Your task to perform on an android device: Open privacy settings Image 0: 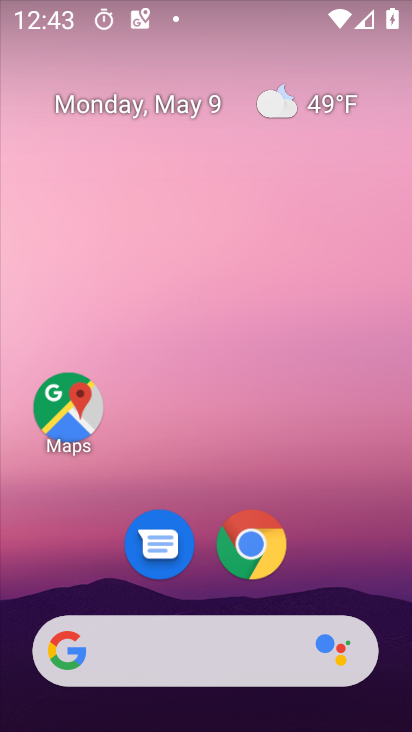
Step 0: drag from (331, 617) to (299, 56)
Your task to perform on an android device: Open privacy settings Image 1: 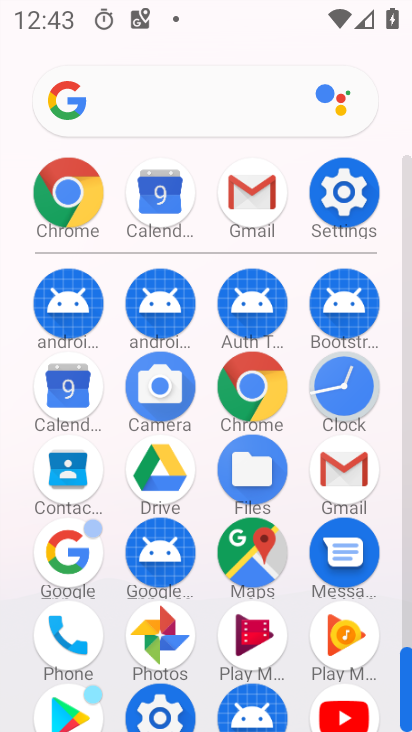
Step 1: click (72, 481)
Your task to perform on an android device: Open privacy settings Image 2: 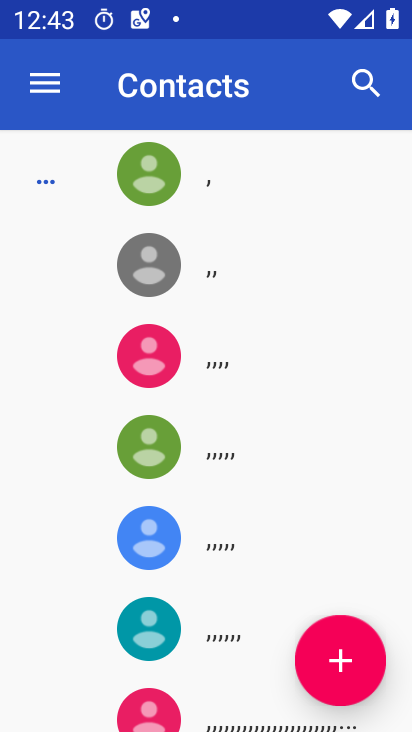
Step 2: press back button
Your task to perform on an android device: Open privacy settings Image 3: 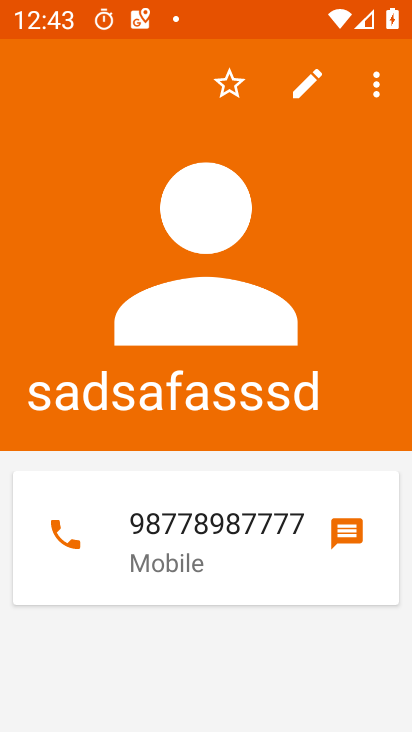
Step 3: press home button
Your task to perform on an android device: Open privacy settings Image 4: 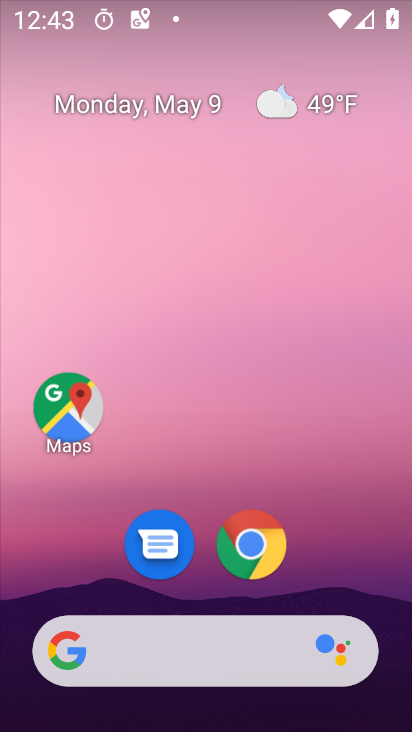
Step 4: drag from (307, 592) to (341, 4)
Your task to perform on an android device: Open privacy settings Image 5: 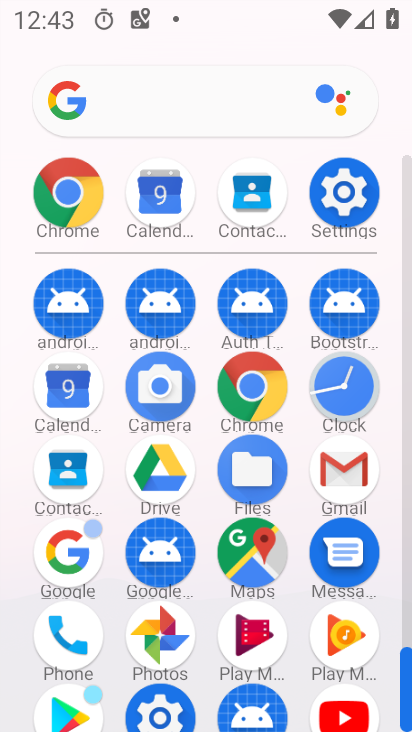
Step 5: click (354, 190)
Your task to perform on an android device: Open privacy settings Image 6: 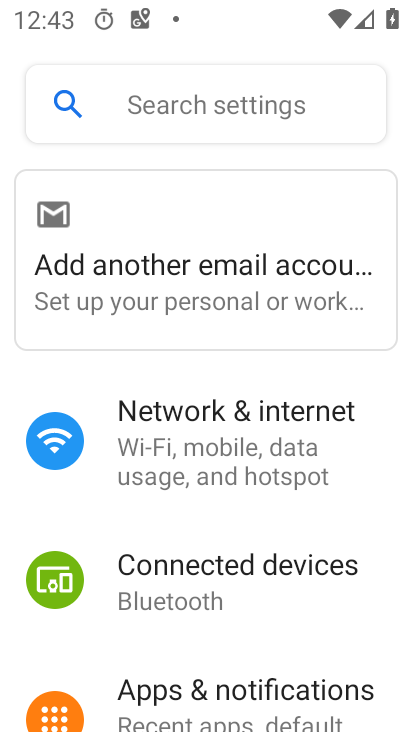
Step 6: drag from (263, 679) to (281, 30)
Your task to perform on an android device: Open privacy settings Image 7: 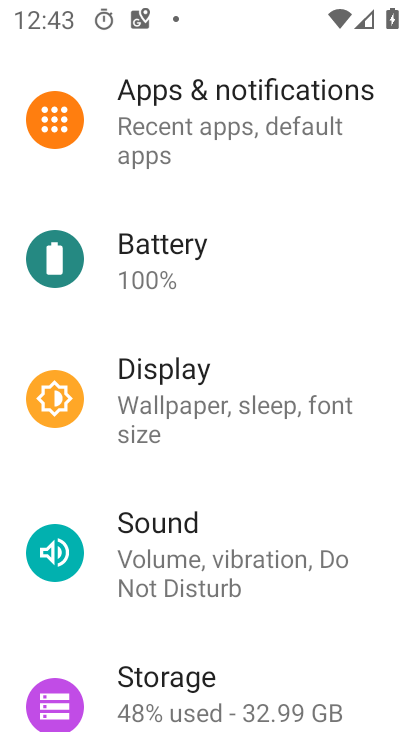
Step 7: drag from (208, 622) to (262, 99)
Your task to perform on an android device: Open privacy settings Image 8: 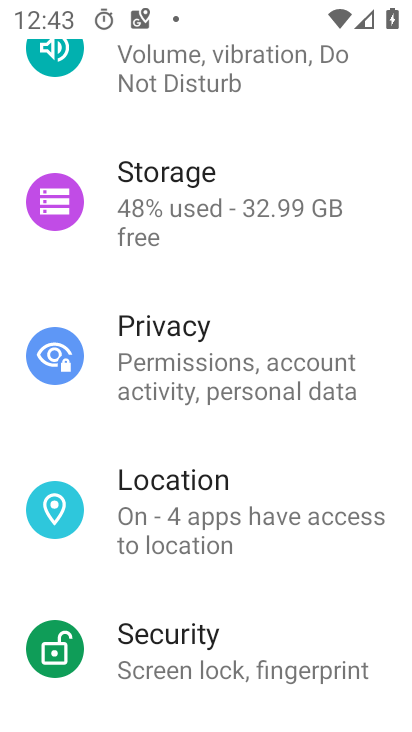
Step 8: click (218, 387)
Your task to perform on an android device: Open privacy settings Image 9: 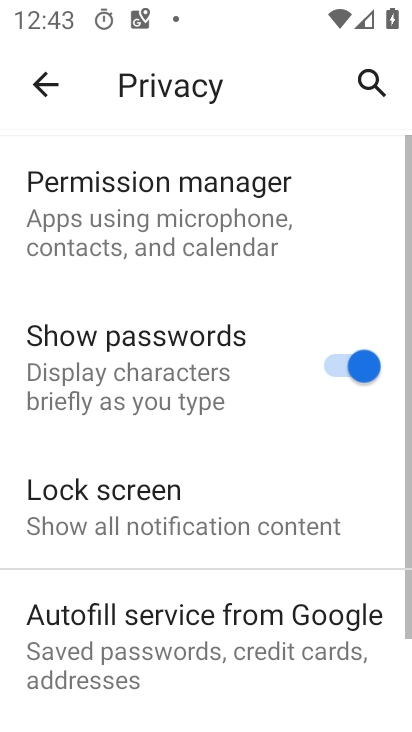
Step 9: task complete